Your task to perform on an android device: turn off wifi Image 0: 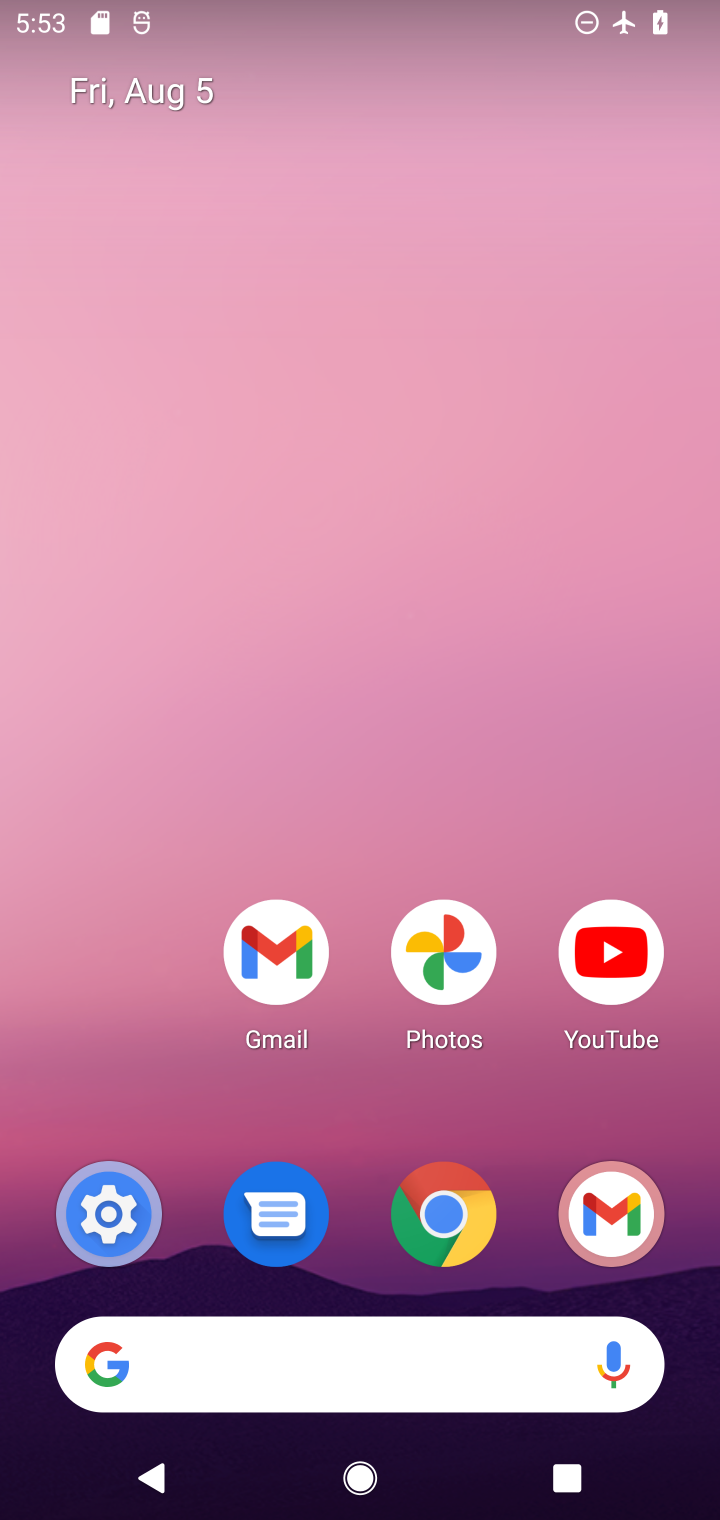
Step 0: click (126, 1201)
Your task to perform on an android device: turn off wifi Image 1: 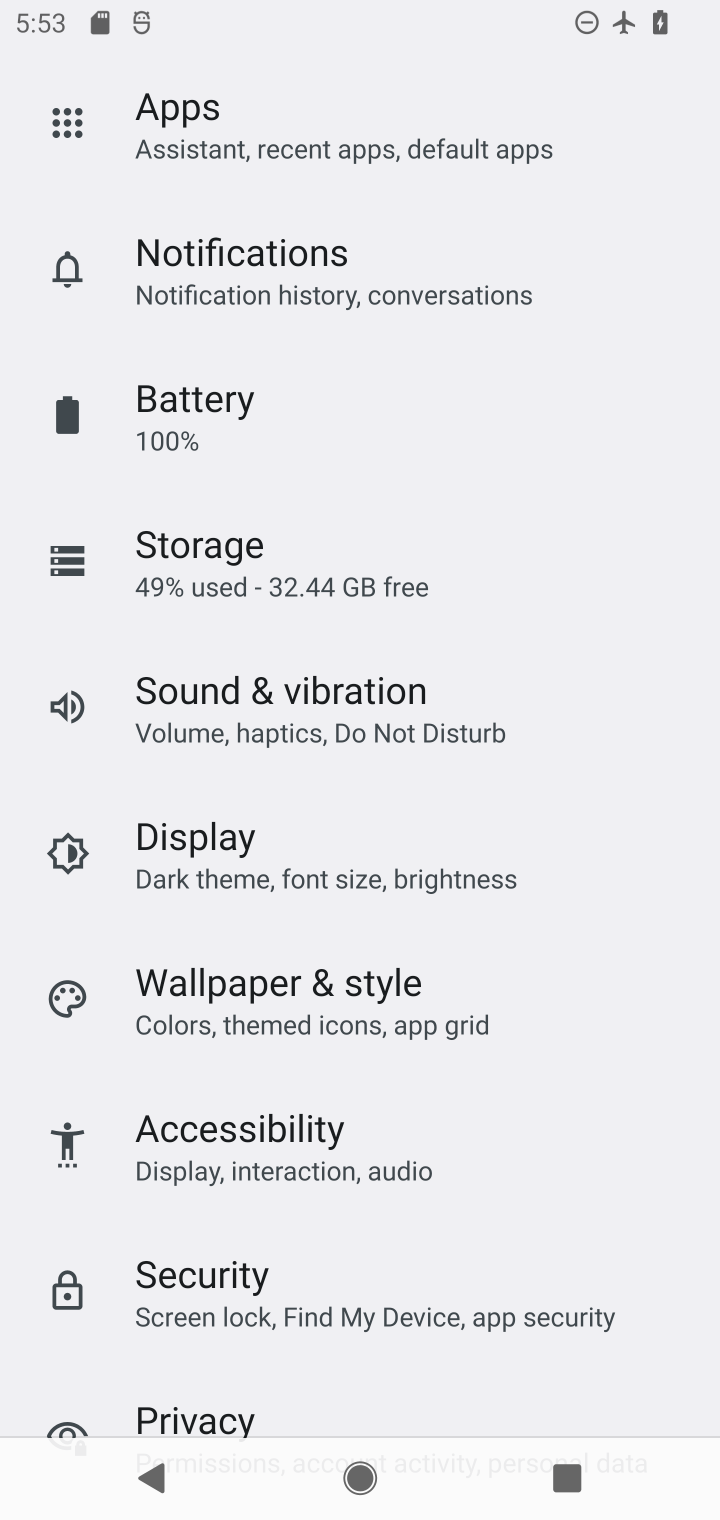
Step 1: drag from (388, 380) to (383, 1356)
Your task to perform on an android device: turn off wifi Image 2: 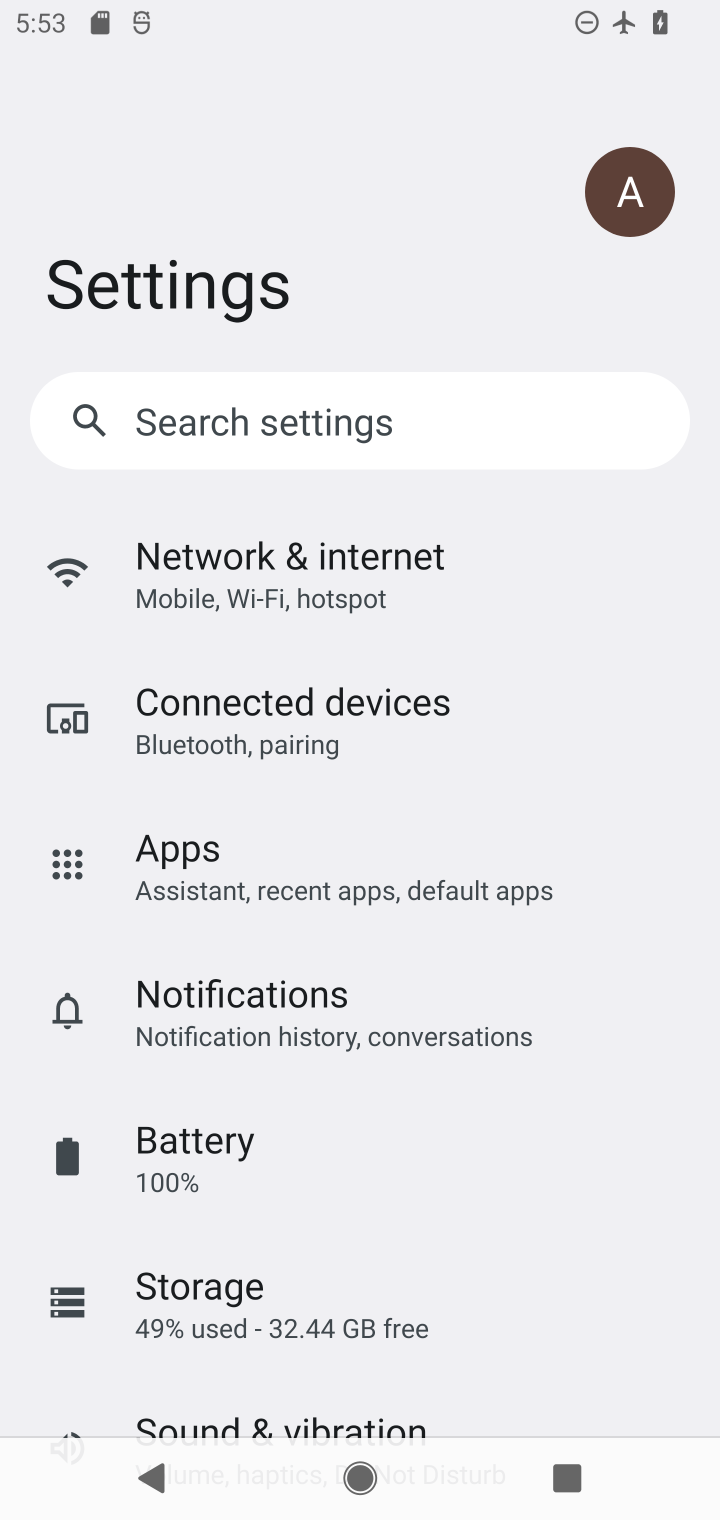
Step 2: click (325, 572)
Your task to perform on an android device: turn off wifi Image 3: 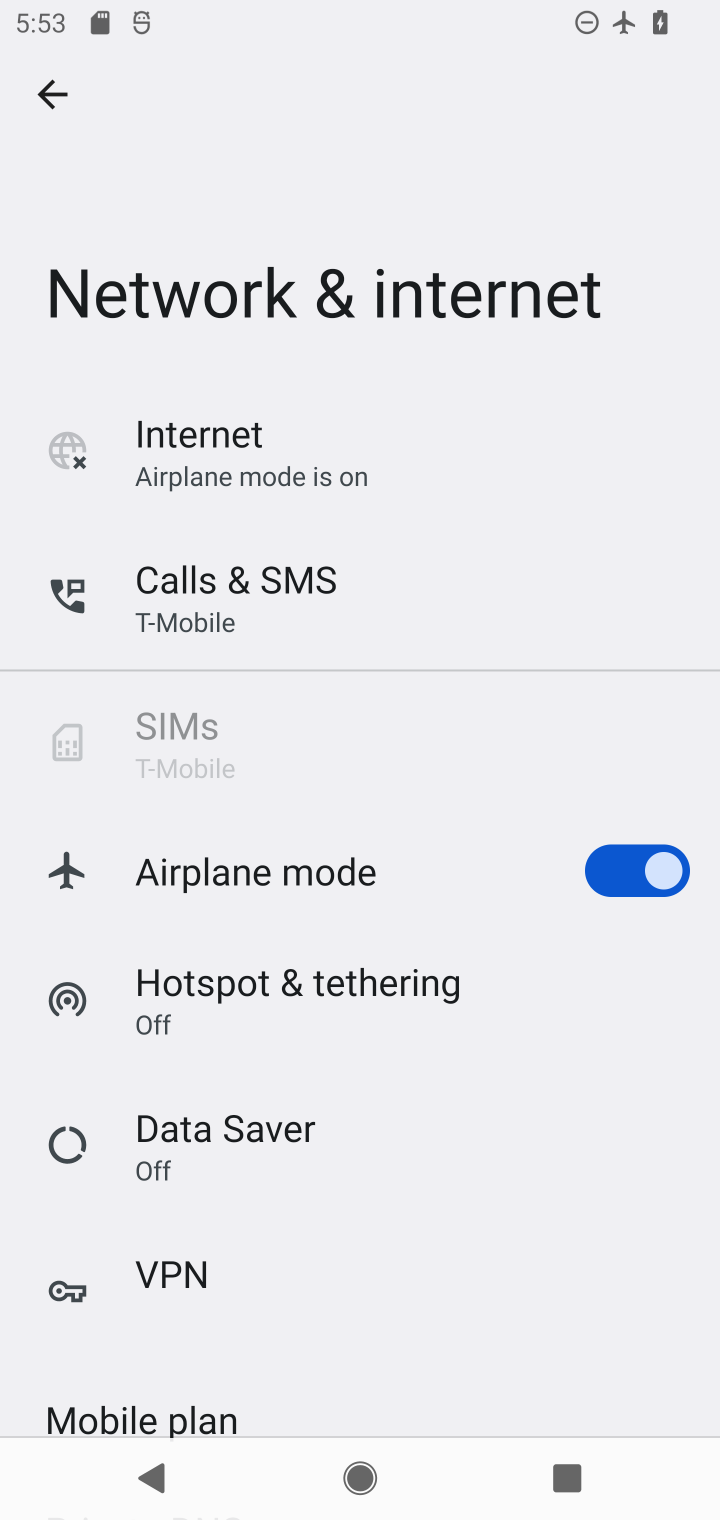
Step 3: click (312, 462)
Your task to perform on an android device: turn off wifi Image 4: 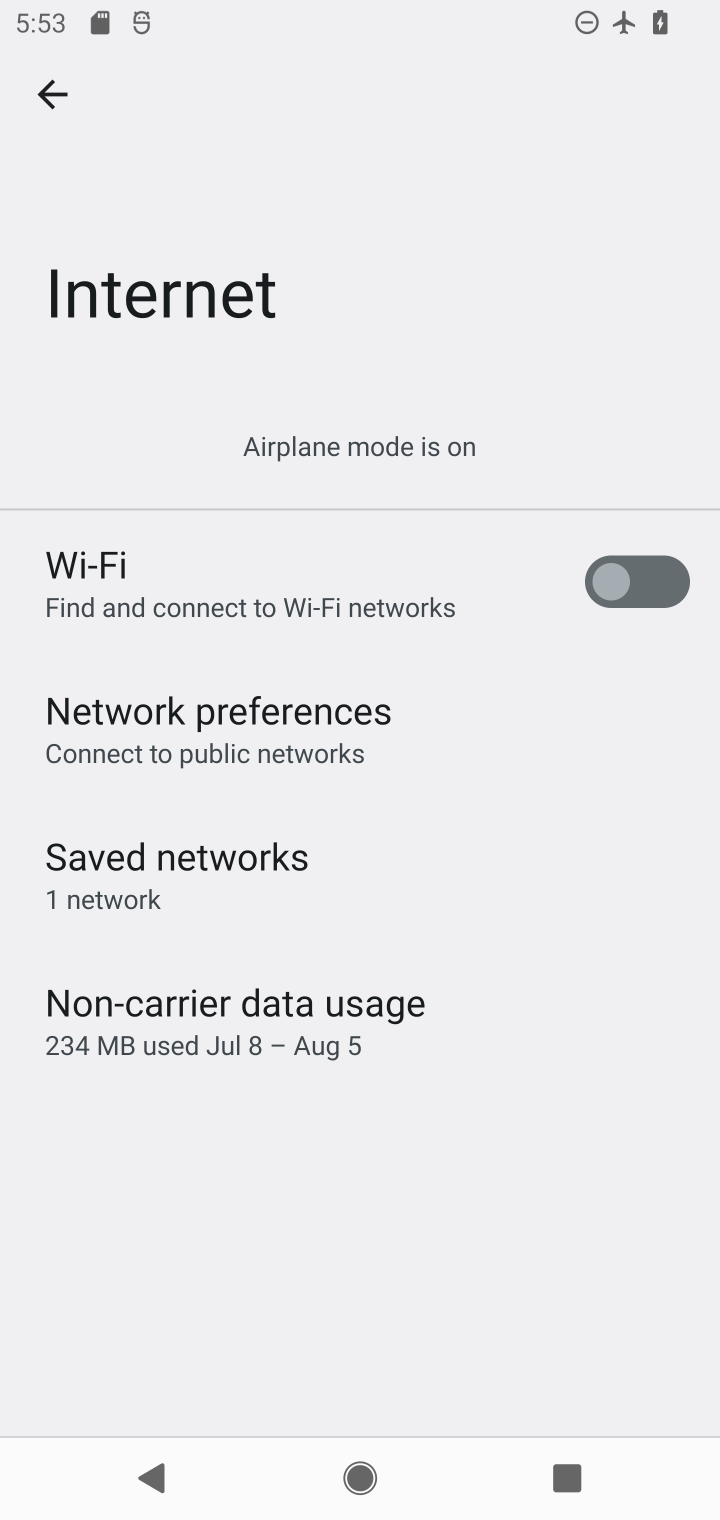
Step 4: task complete